Your task to perform on an android device: turn notification dots on Image 0: 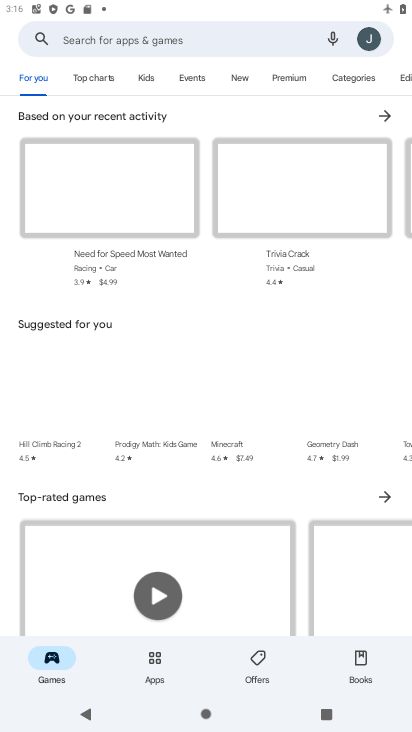
Step 0: press home button
Your task to perform on an android device: turn notification dots on Image 1: 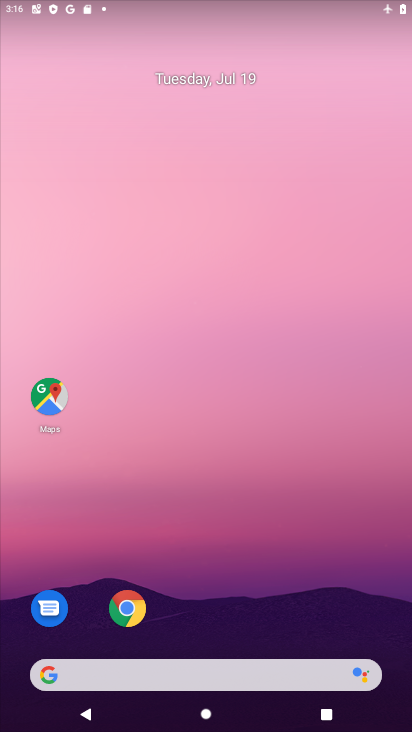
Step 1: drag from (204, 614) to (215, 116)
Your task to perform on an android device: turn notification dots on Image 2: 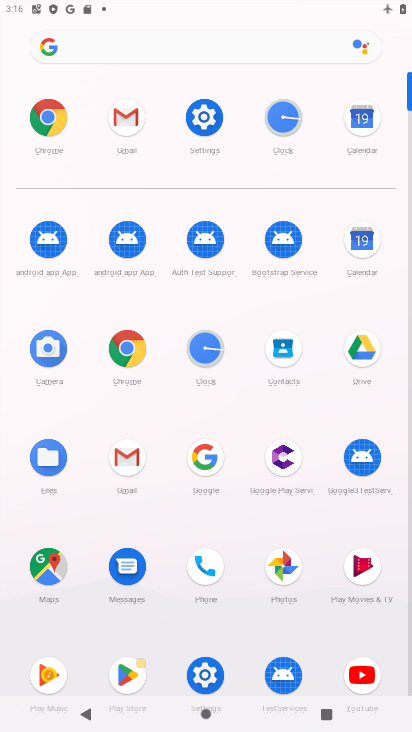
Step 2: click (208, 125)
Your task to perform on an android device: turn notification dots on Image 3: 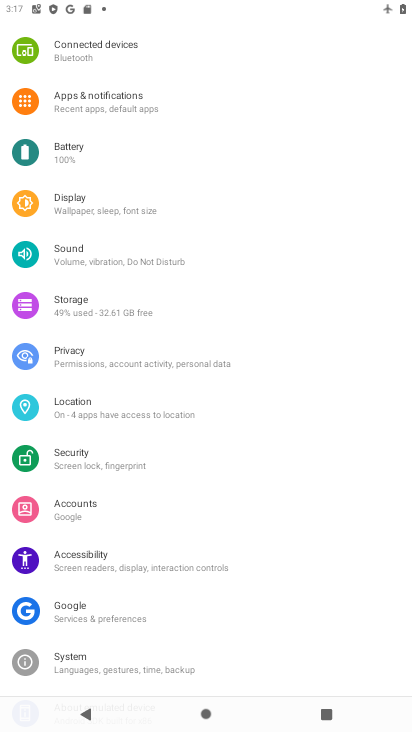
Step 3: click (110, 105)
Your task to perform on an android device: turn notification dots on Image 4: 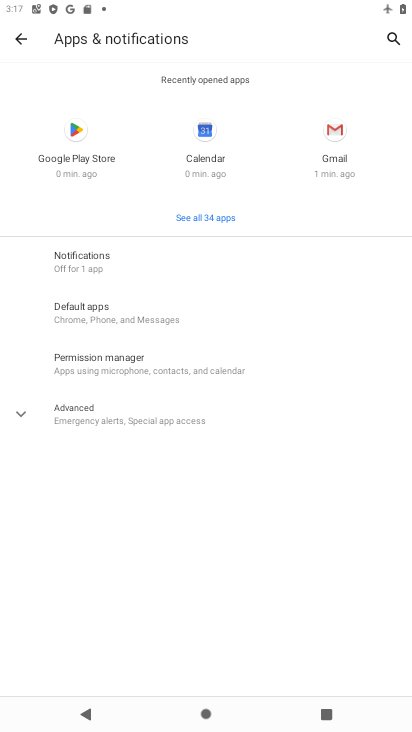
Step 4: click (67, 255)
Your task to perform on an android device: turn notification dots on Image 5: 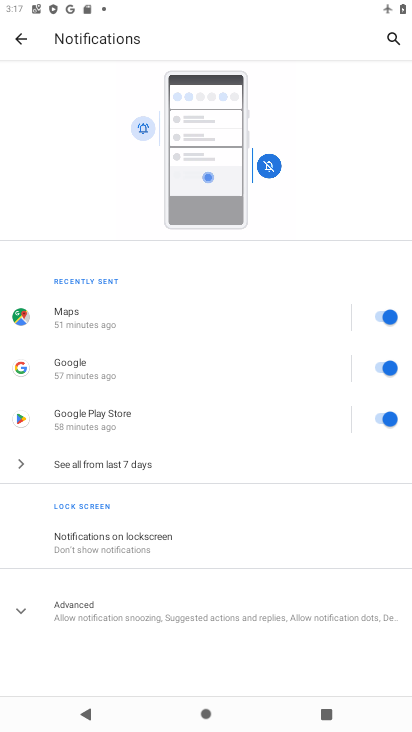
Step 5: click (143, 610)
Your task to perform on an android device: turn notification dots on Image 6: 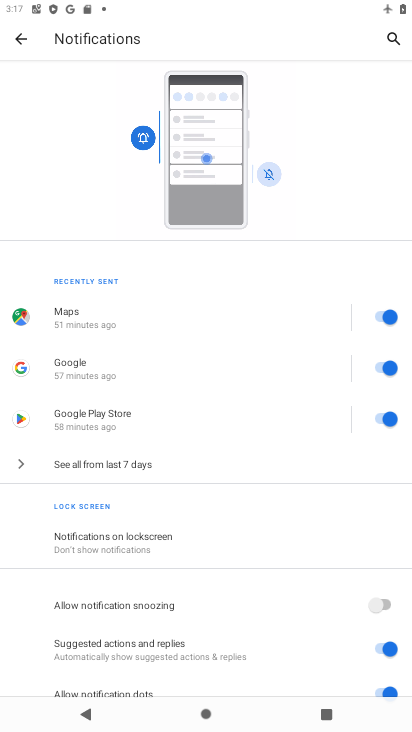
Step 6: task complete